Your task to perform on an android device: Open Chrome and go to the settings page Image 0: 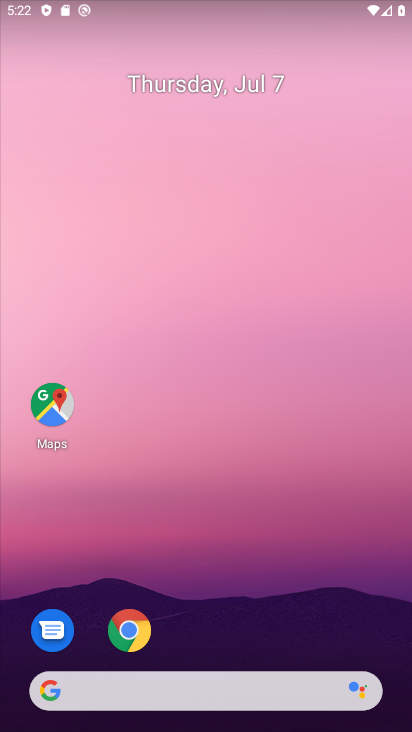
Step 0: click (122, 643)
Your task to perform on an android device: Open Chrome and go to the settings page Image 1: 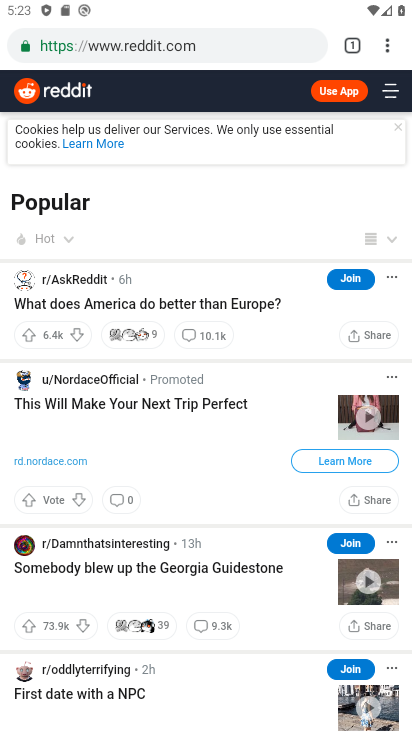
Step 1: click (386, 38)
Your task to perform on an android device: Open Chrome and go to the settings page Image 2: 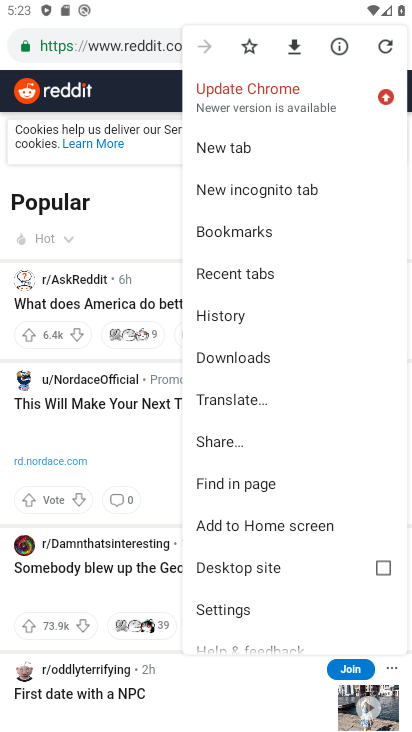
Step 2: click (223, 607)
Your task to perform on an android device: Open Chrome and go to the settings page Image 3: 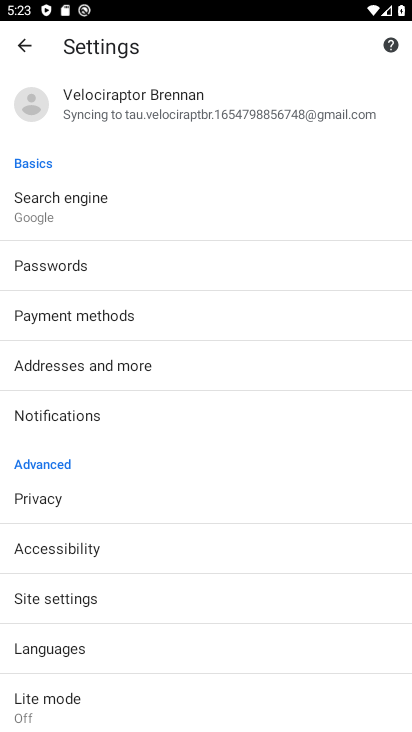
Step 3: click (223, 607)
Your task to perform on an android device: Open Chrome and go to the settings page Image 4: 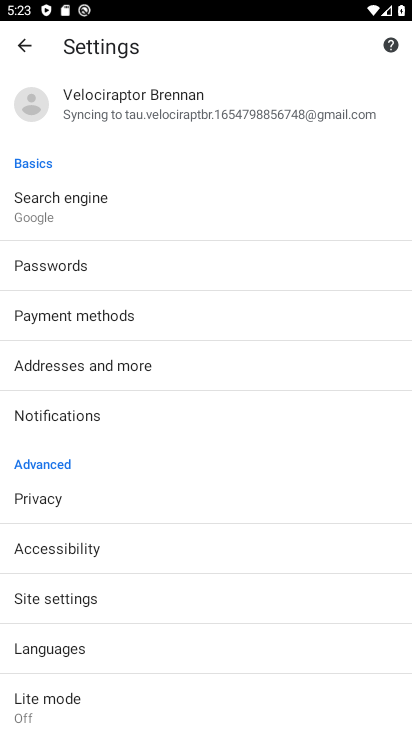
Step 4: task complete